Your task to perform on an android device: Open settings on Google Maps Image 0: 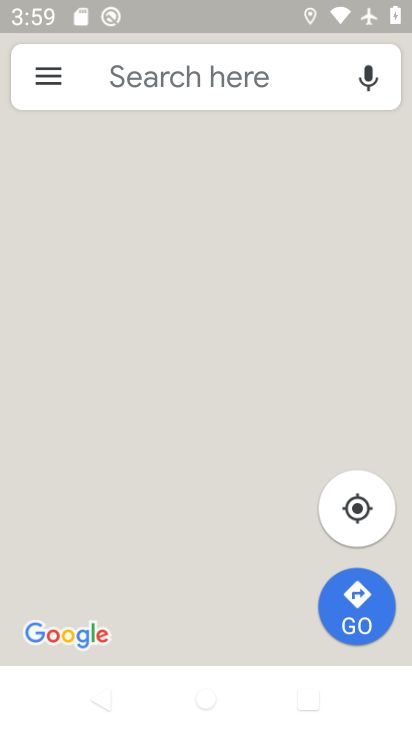
Step 0: task complete